Your task to perform on an android device: open a bookmark in the chrome app Image 0: 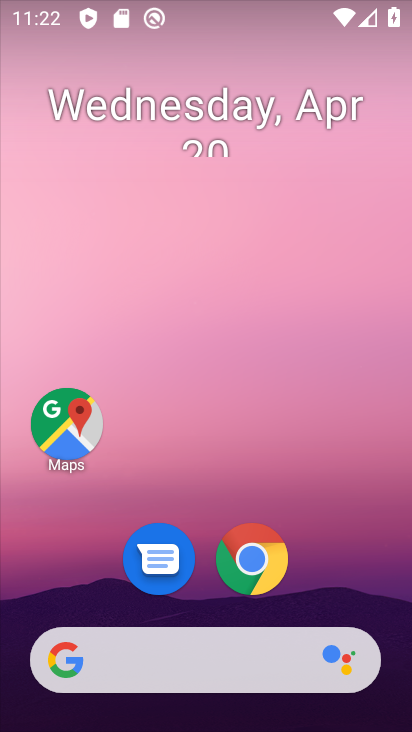
Step 0: click (293, 570)
Your task to perform on an android device: open a bookmark in the chrome app Image 1: 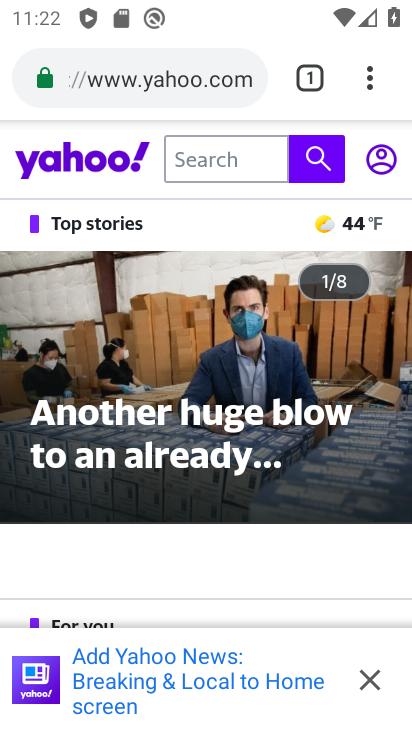
Step 1: click (369, 86)
Your task to perform on an android device: open a bookmark in the chrome app Image 2: 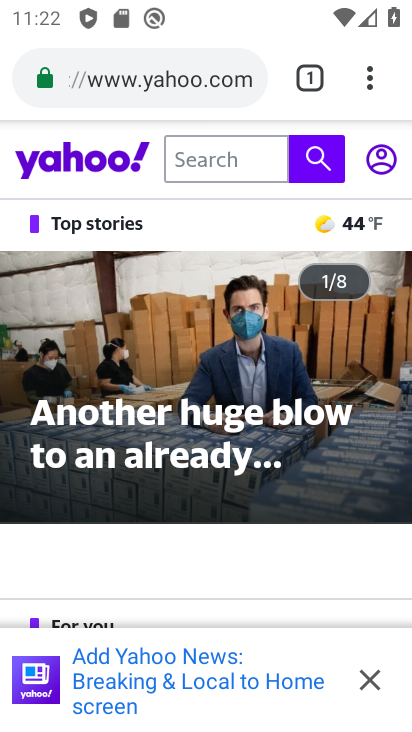
Step 2: click (367, 83)
Your task to perform on an android device: open a bookmark in the chrome app Image 3: 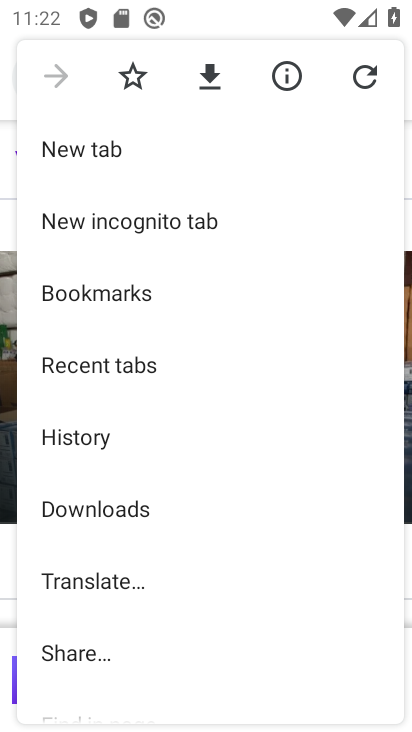
Step 3: click (140, 296)
Your task to perform on an android device: open a bookmark in the chrome app Image 4: 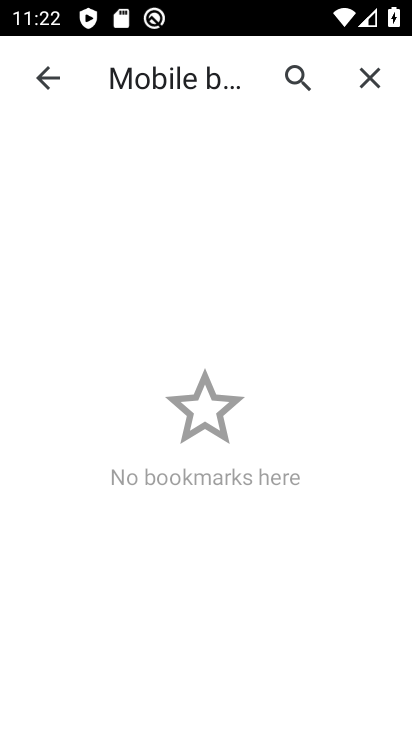
Step 4: task complete